Your task to perform on an android device: Go to Android settings Image 0: 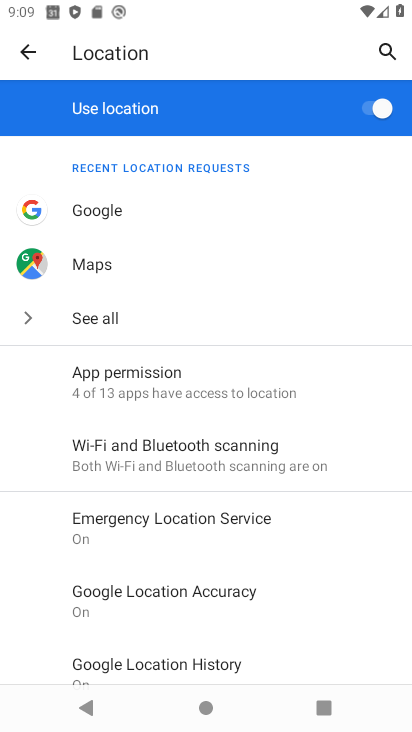
Step 0: press home button
Your task to perform on an android device: Go to Android settings Image 1: 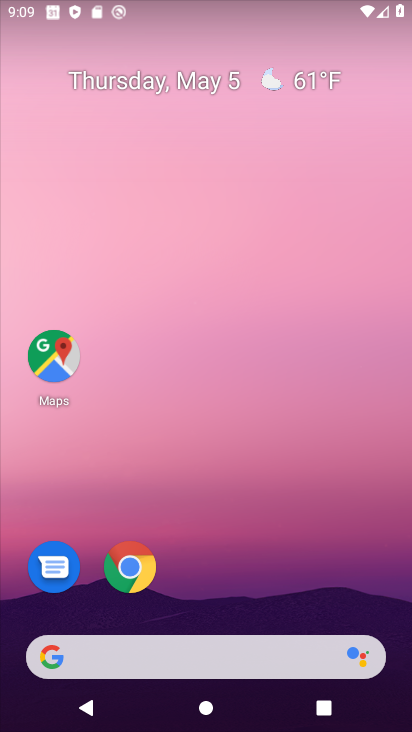
Step 1: drag from (224, 729) to (227, 150)
Your task to perform on an android device: Go to Android settings Image 2: 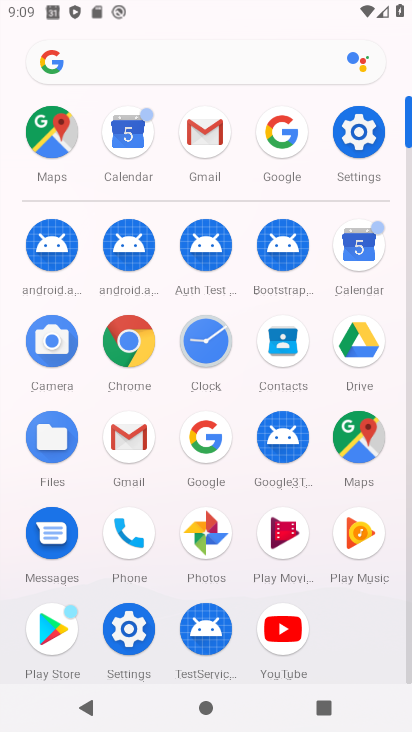
Step 2: click (131, 628)
Your task to perform on an android device: Go to Android settings Image 3: 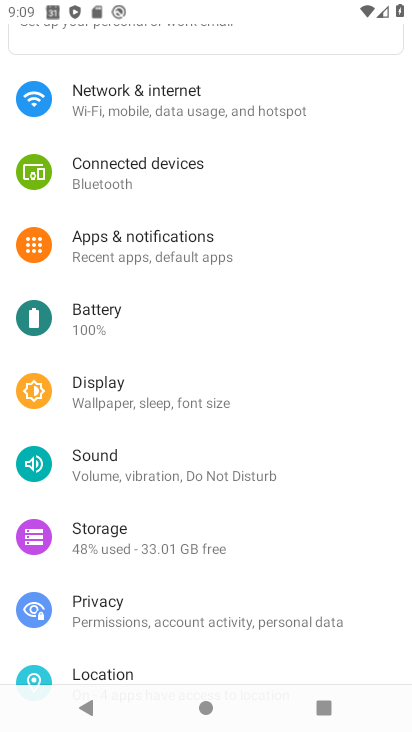
Step 3: drag from (153, 669) to (161, 277)
Your task to perform on an android device: Go to Android settings Image 4: 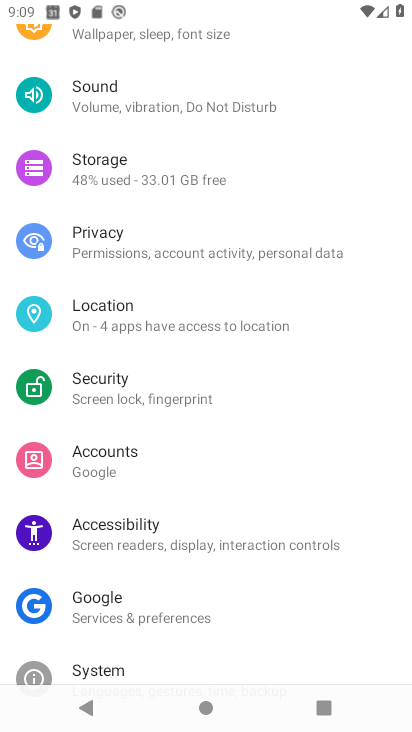
Step 4: drag from (153, 647) to (159, 269)
Your task to perform on an android device: Go to Android settings Image 5: 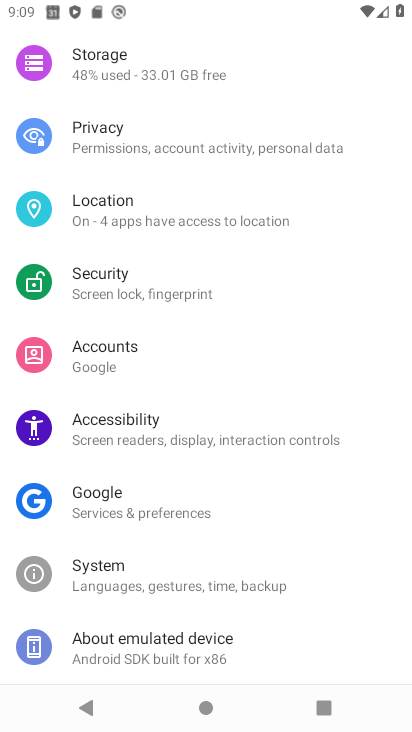
Step 5: click (125, 646)
Your task to perform on an android device: Go to Android settings Image 6: 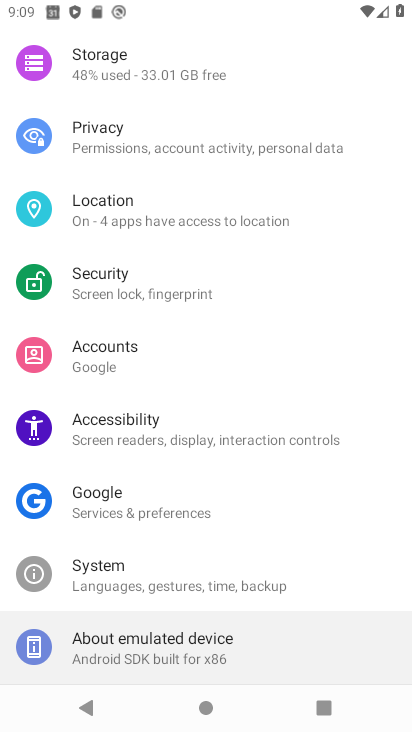
Step 6: click (125, 646)
Your task to perform on an android device: Go to Android settings Image 7: 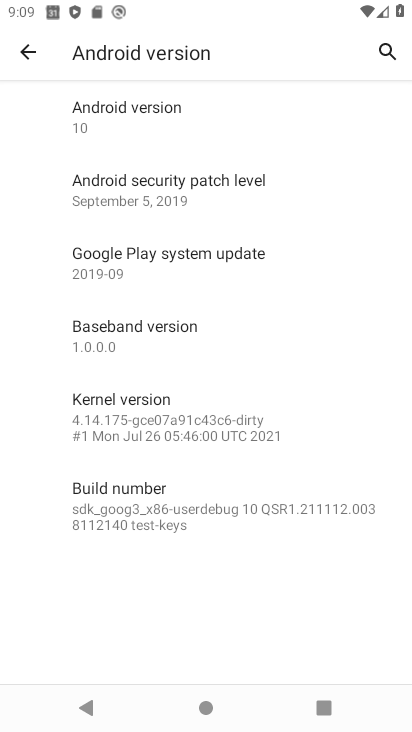
Step 7: task complete